Your task to perform on an android device: Open Chrome and go to the settings page Image 0: 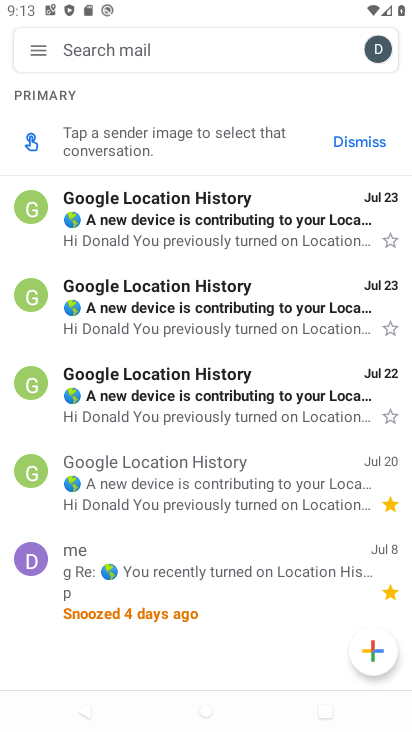
Step 0: press home button
Your task to perform on an android device: Open Chrome and go to the settings page Image 1: 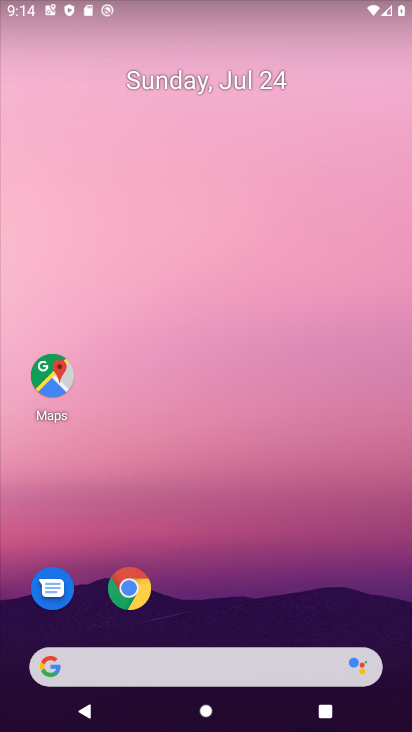
Step 1: click (133, 588)
Your task to perform on an android device: Open Chrome and go to the settings page Image 2: 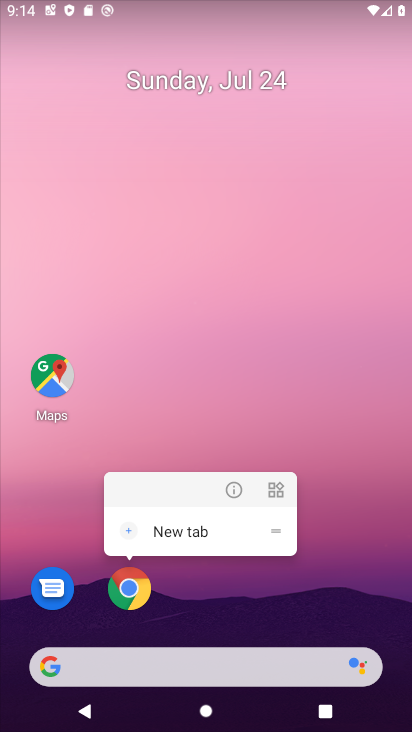
Step 2: click (133, 588)
Your task to perform on an android device: Open Chrome and go to the settings page Image 3: 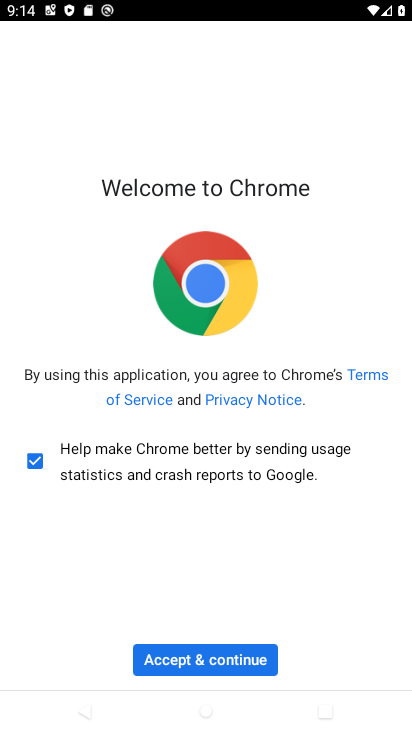
Step 3: click (208, 662)
Your task to perform on an android device: Open Chrome and go to the settings page Image 4: 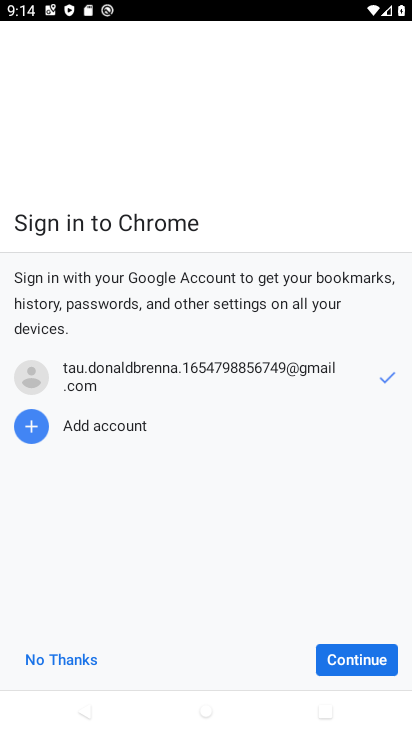
Step 4: click (72, 664)
Your task to perform on an android device: Open Chrome and go to the settings page Image 5: 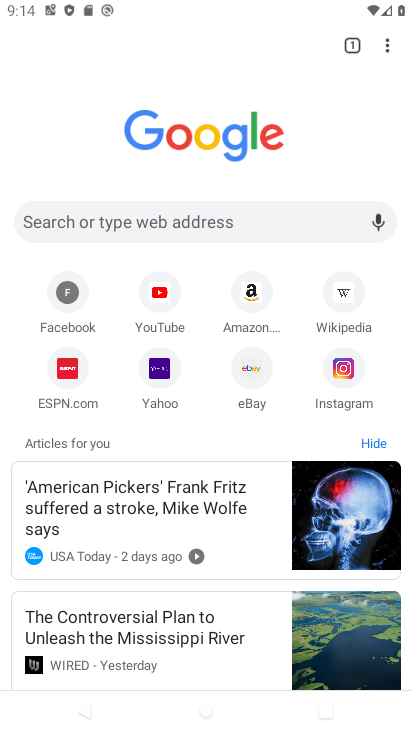
Step 5: click (390, 48)
Your task to perform on an android device: Open Chrome and go to the settings page Image 6: 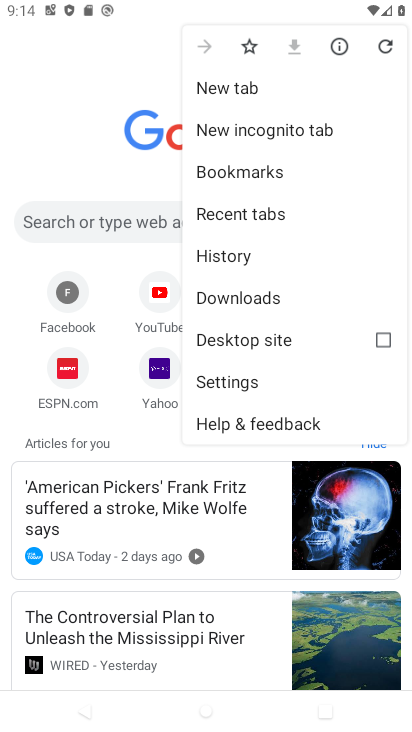
Step 6: click (226, 380)
Your task to perform on an android device: Open Chrome and go to the settings page Image 7: 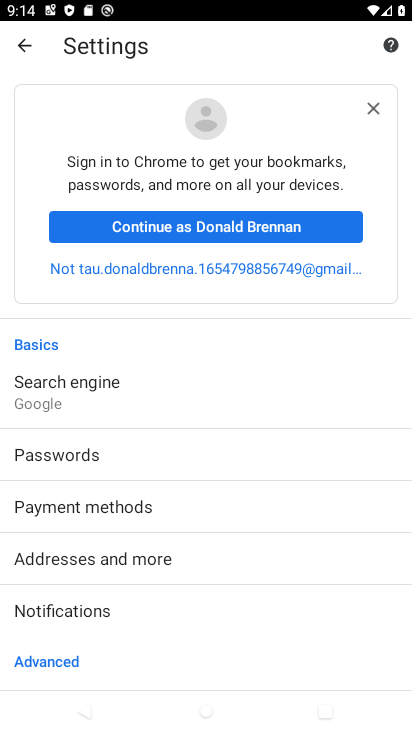
Step 7: task complete